Your task to perform on an android device: show emergency info Image 0: 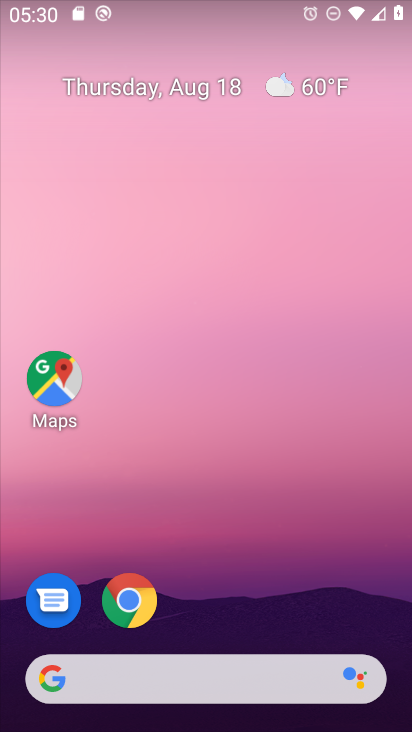
Step 0: press home button
Your task to perform on an android device: show emergency info Image 1: 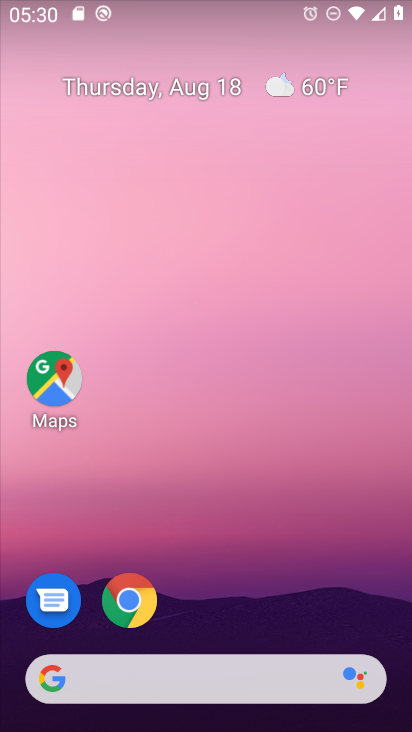
Step 1: drag from (238, 631) to (208, 30)
Your task to perform on an android device: show emergency info Image 2: 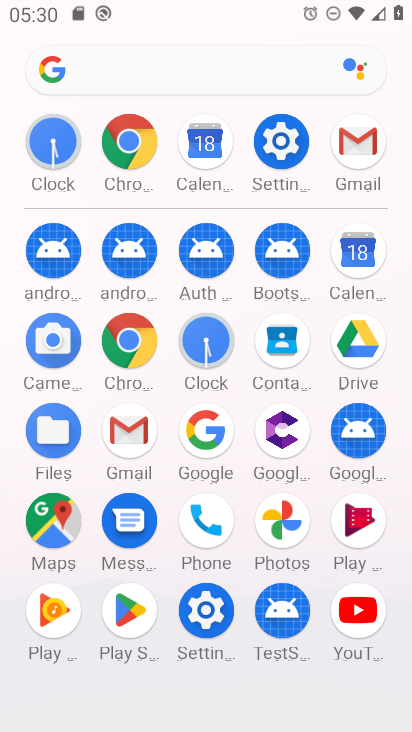
Step 2: click (283, 151)
Your task to perform on an android device: show emergency info Image 3: 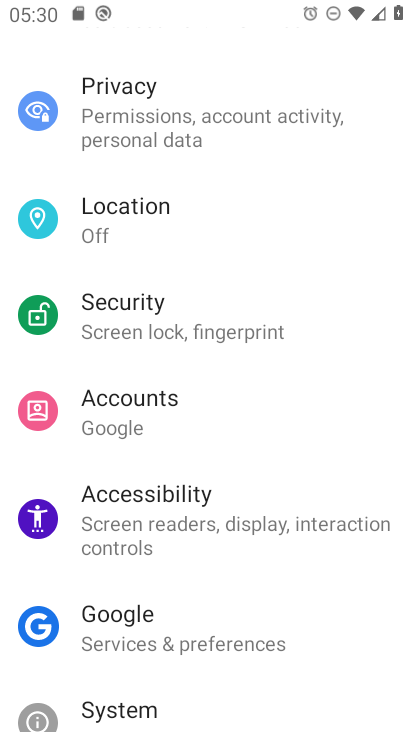
Step 3: drag from (331, 698) to (309, 34)
Your task to perform on an android device: show emergency info Image 4: 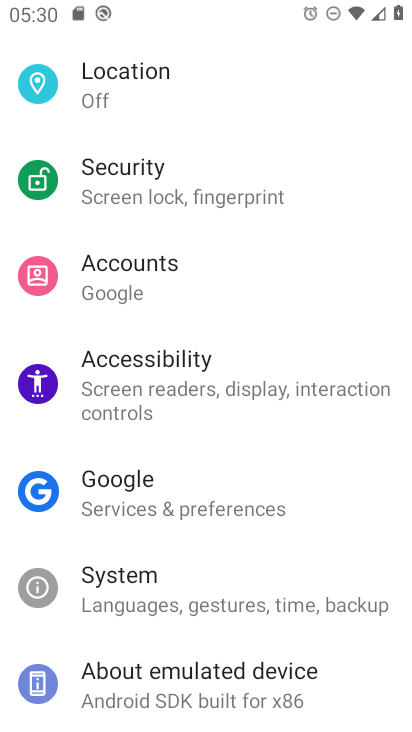
Step 4: click (187, 673)
Your task to perform on an android device: show emergency info Image 5: 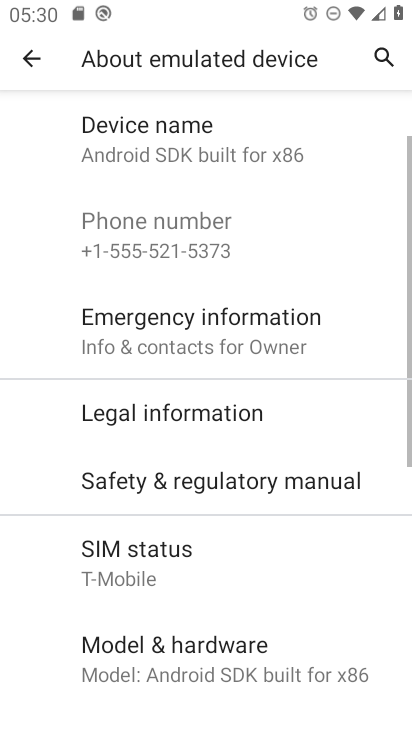
Step 5: click (141, 324)
Your task to perform on an android device: show emergency info Image 6: 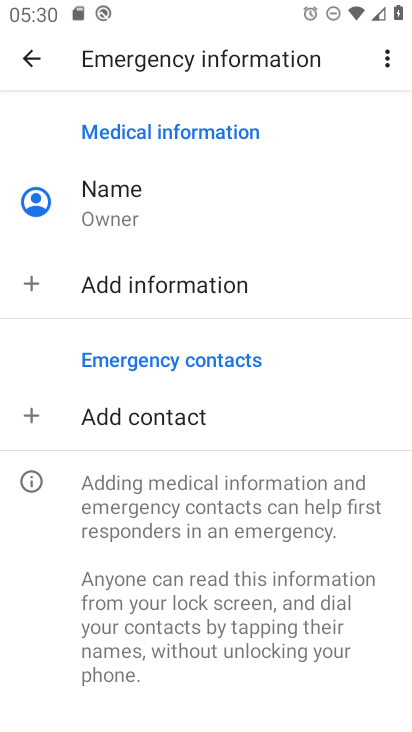
Step 6: task complete